Your task to perform on an android device: Go to display settings Image 0: 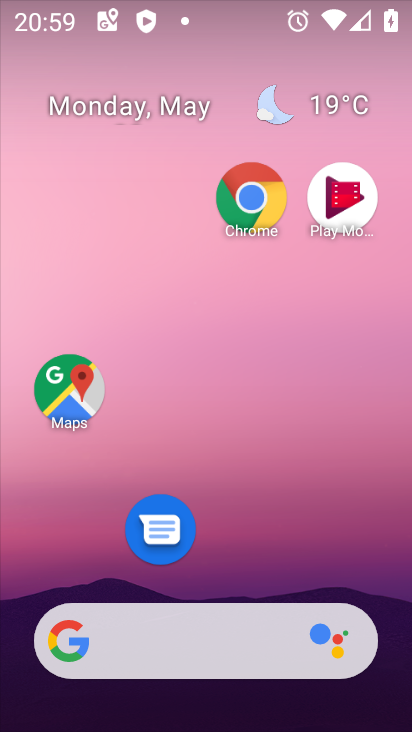
Step 0: drag from (239, 564) to (246, 32)
Your task to perform on an android device: Go to display settings Image 1: 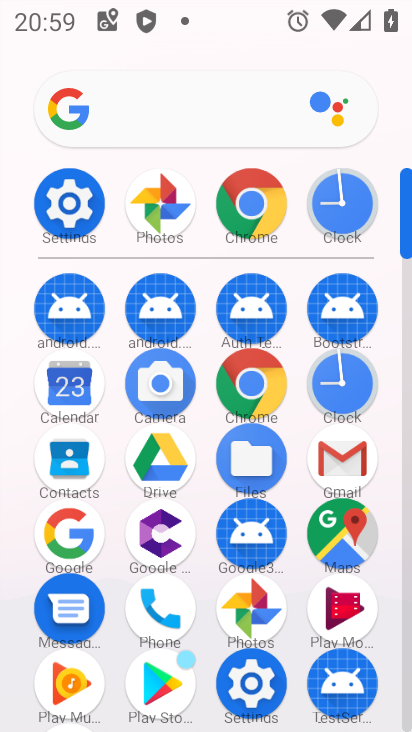
Step 1: click (64, 205)
Your task to perform on an android device: Go to display settings Image 2: 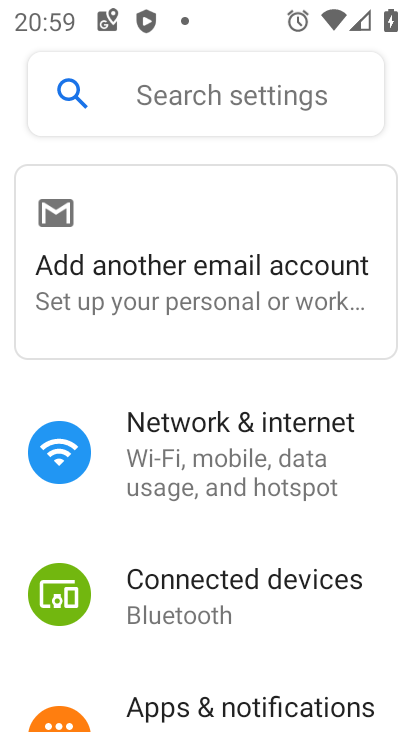
Step 2: drag from (296, 678) to (288, 236)
Your task to perform on an android device: Go to display settings Image 3: 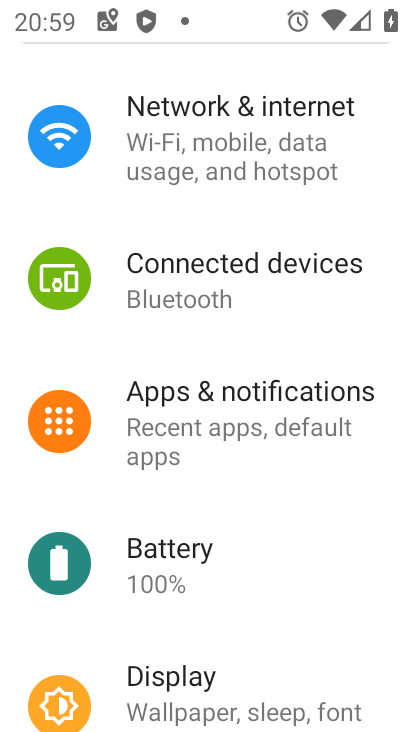
Step 3: drag from (209, 625) to (223, 324)
Your task to perform on an android device: Go to display settings Image 4: 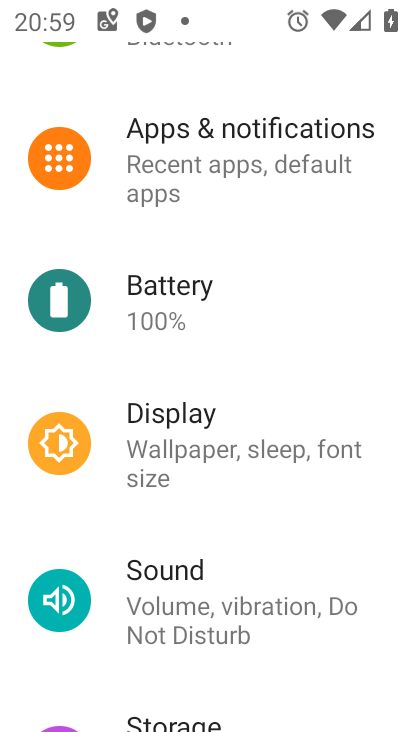
Step 4: click (193, 450)
Your task to perform on an android device: Go to display settings Image 5: 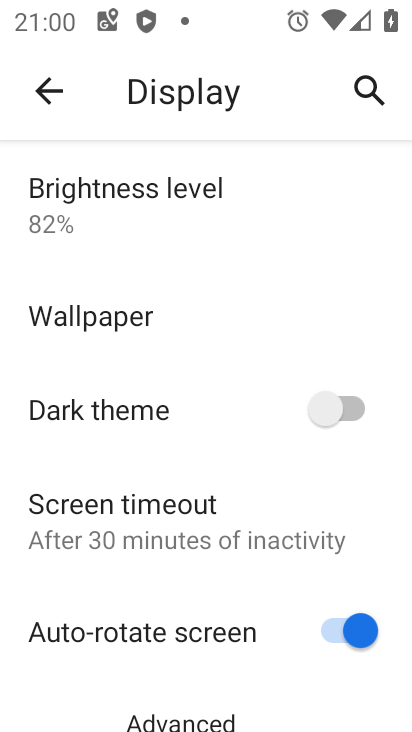
Step 5: task complete